Your task to perform on an android device: Open Google Maps and go to "Timeline" Image 0: 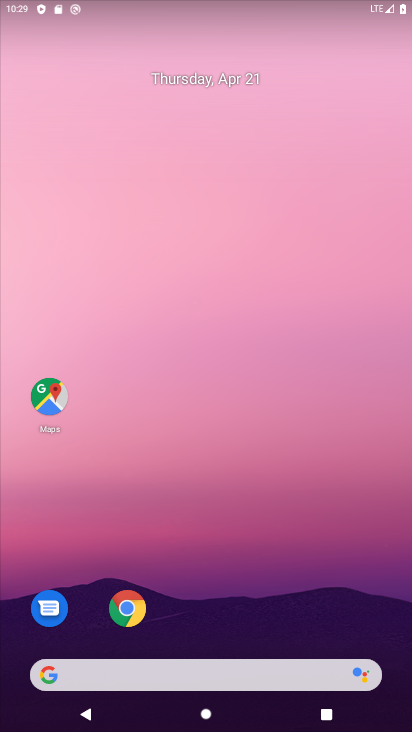
Step 0: click (49, 384)
Your task to perform on an android device: Open Google Maps and go to "Timeline" Image 1: 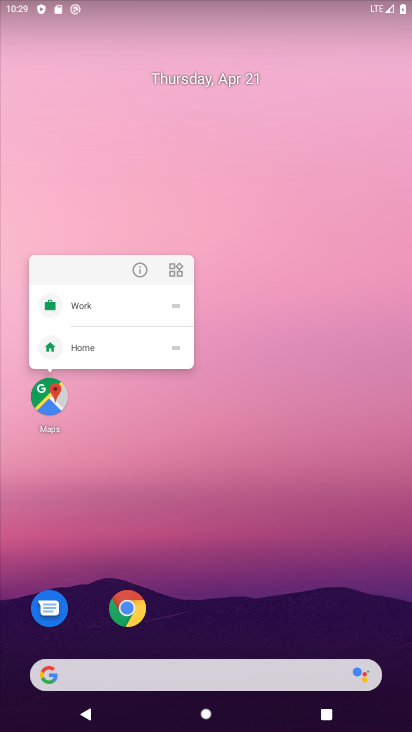
Step 1: click (49, 384)
Your task to perform on an android device: Open Google Maps and go to "Timeline" Image 2: 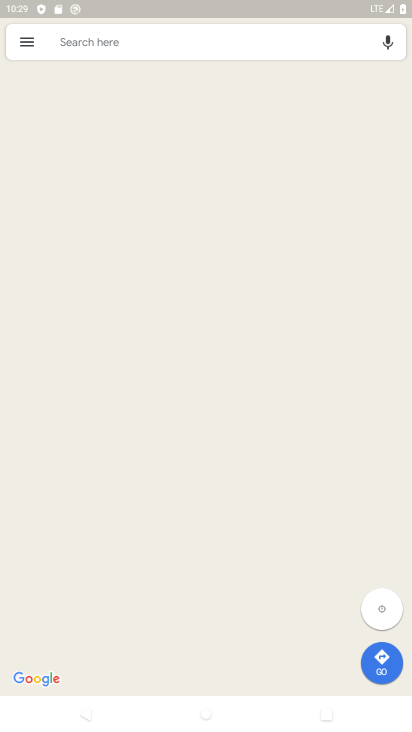
Step 2: click (19, 41)
Your task to perform on an android device: Open Google Maps and go to "Timeline" Image 3: 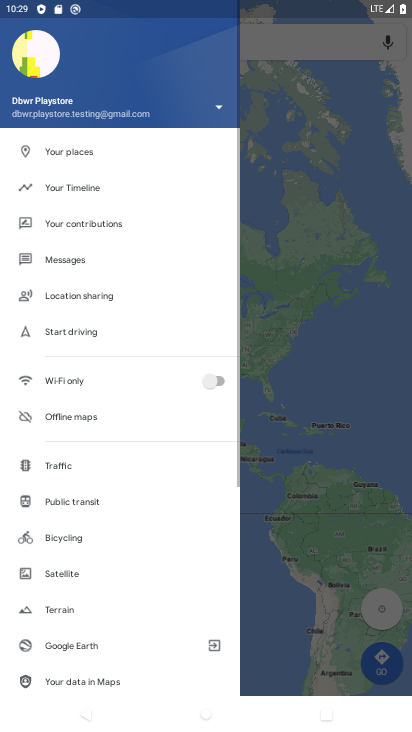
Step 3: click (69, 190)
Your task to perform on an android device: Open Google Maps and go to "Timeline" Image 4: 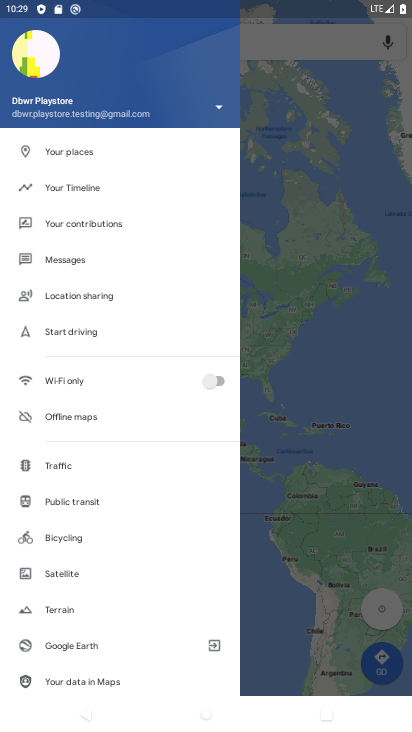
Step 4: click (69, 190)
Your task to perform on an android device: Open Google Maps and go to "Timeline" Image 5: 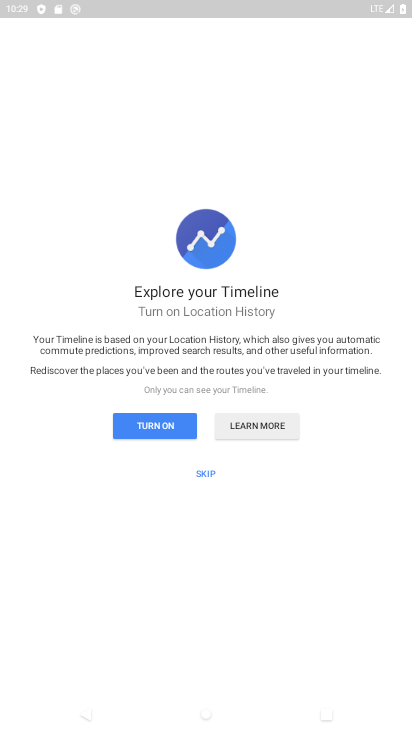
Step 5: task complete